Your task to perform on an android device: change the clock display to digital Image 0: 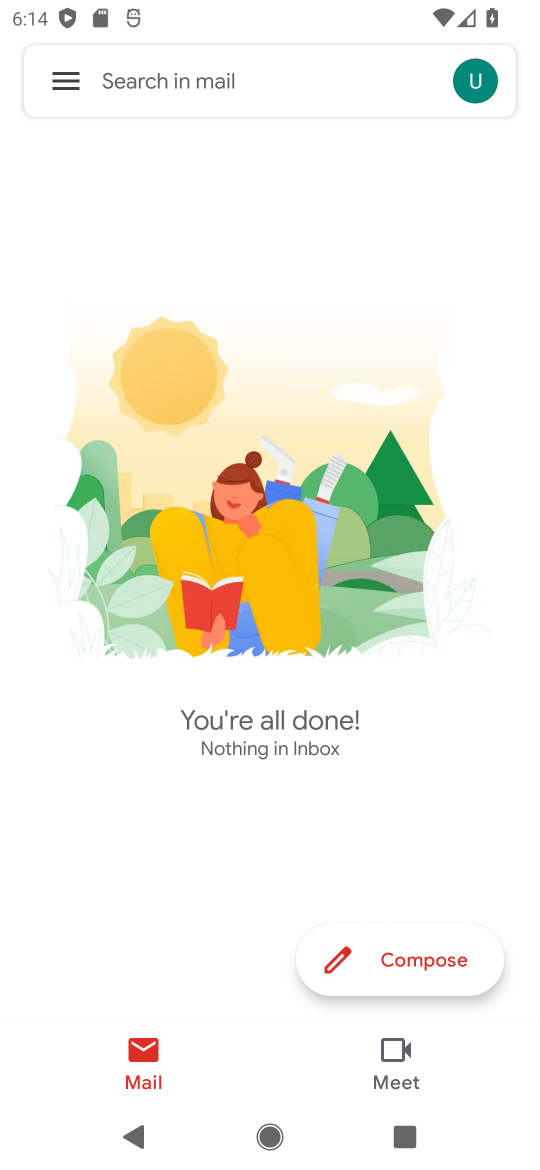
Step 0: press home button
Your task to perform on an android device: change the clock display to digital Image 1: 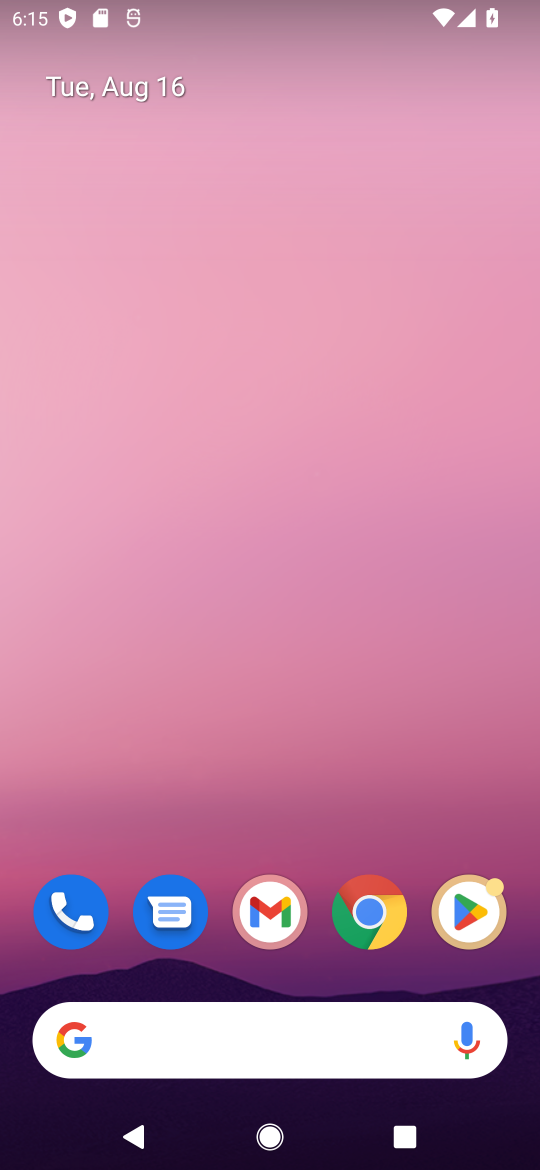
Step 1: drag from (394, 857) to (367, 296)
Your task to perform on an android device: change the clock display to digital Image 2: 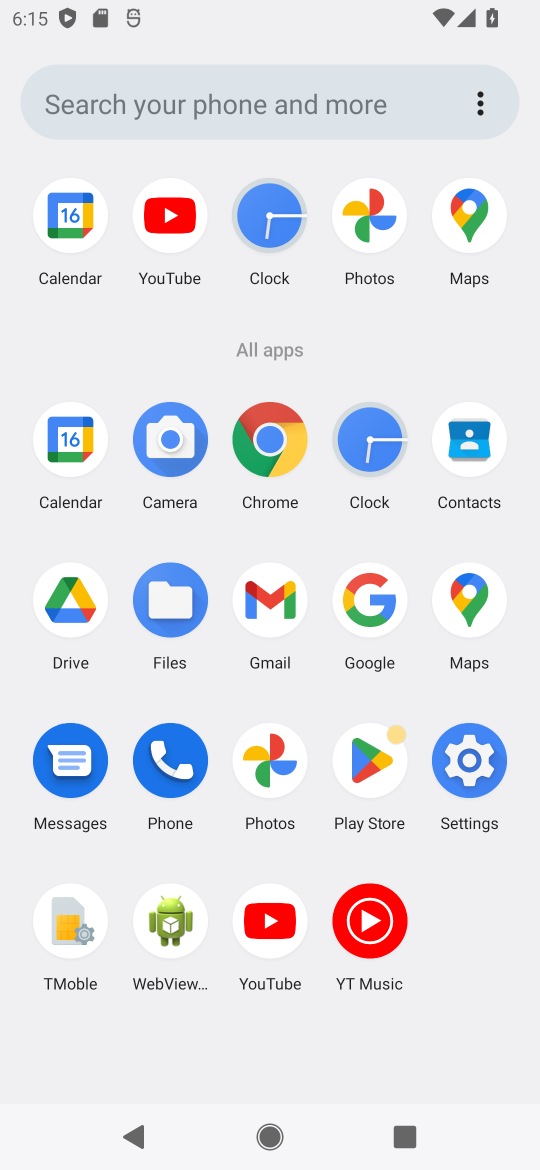
Step 2: click (368, 443)
Your task to perform on an android device: change the clock display to digital Image 3: 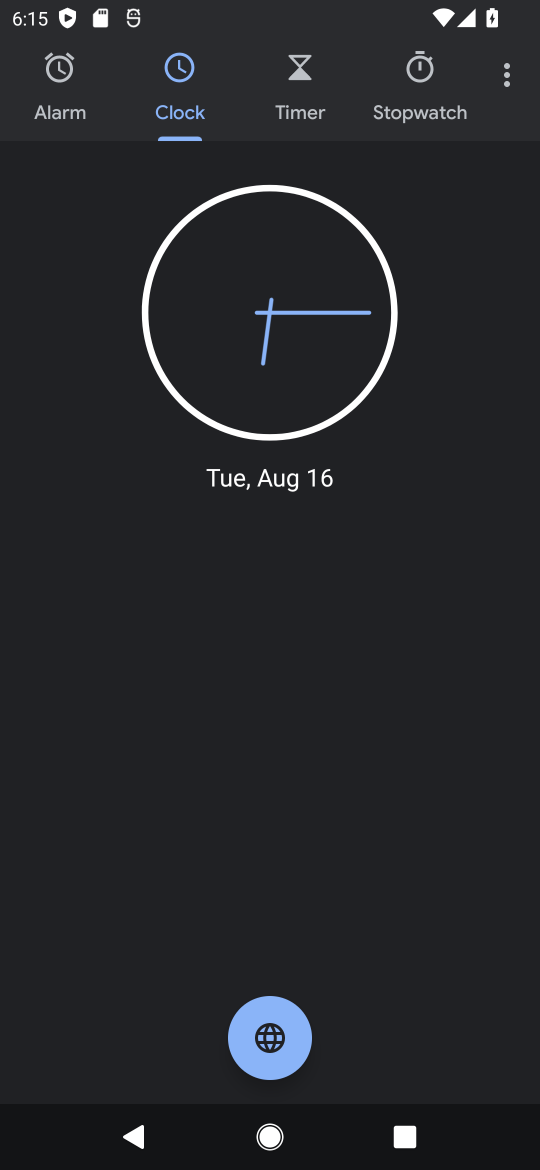
Step 3: click (502, 83)
Your task to perform on an android device: change the clock display to digital Image 4: 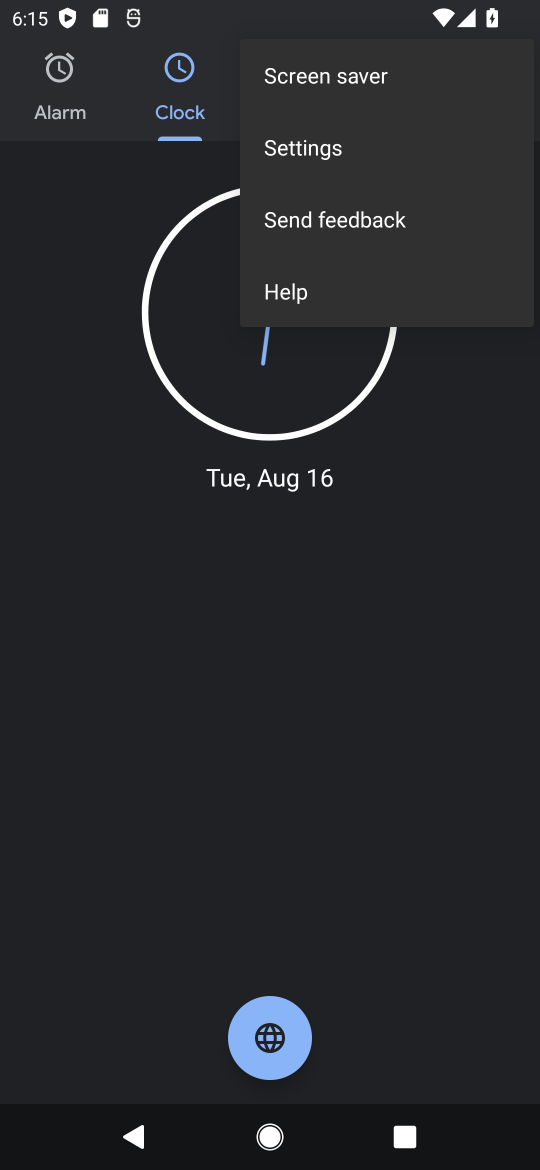
Step 4: click (311, 151)
Your task to perform on an android device: change the clock display to digital Image 5: 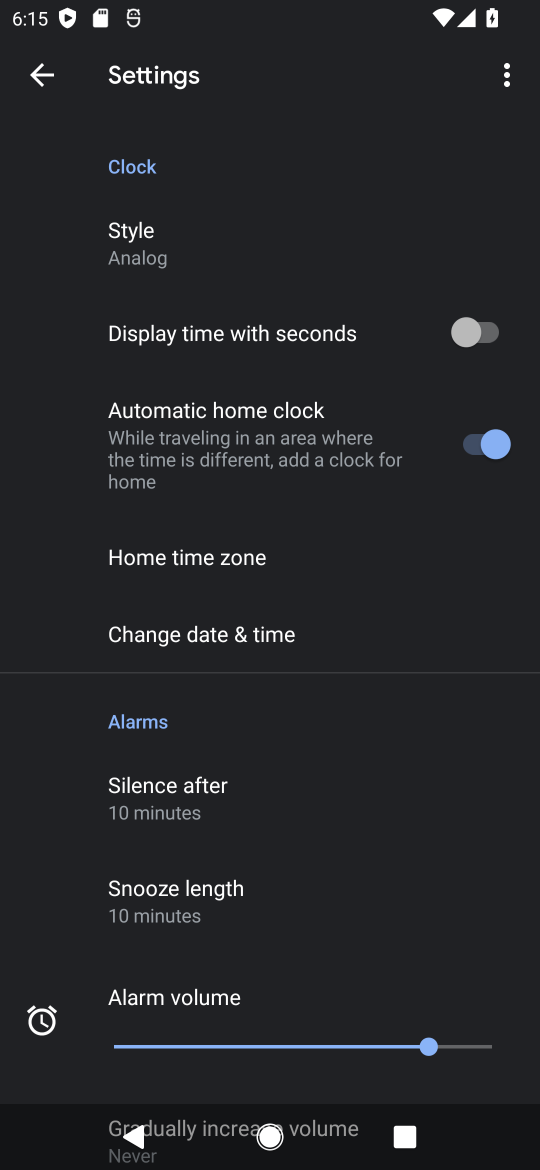
Step 5: click (134, 248)
Your task to perform on an android device: change the clock display to digital Image 6: 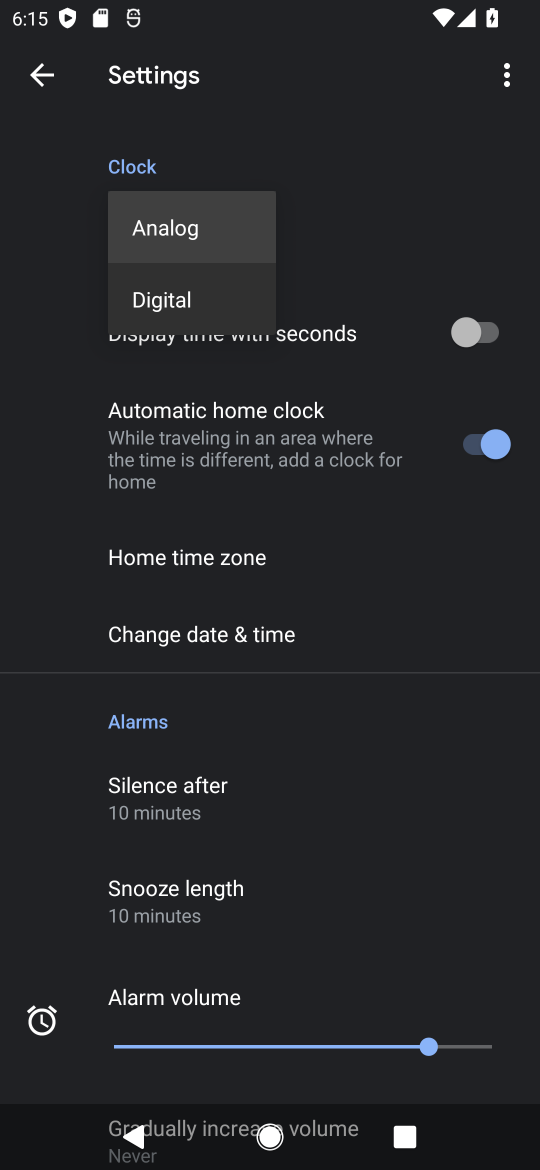
Step 6: click (165, 296)
Your task to perform on an android device: change the clock display to digital Image 7: 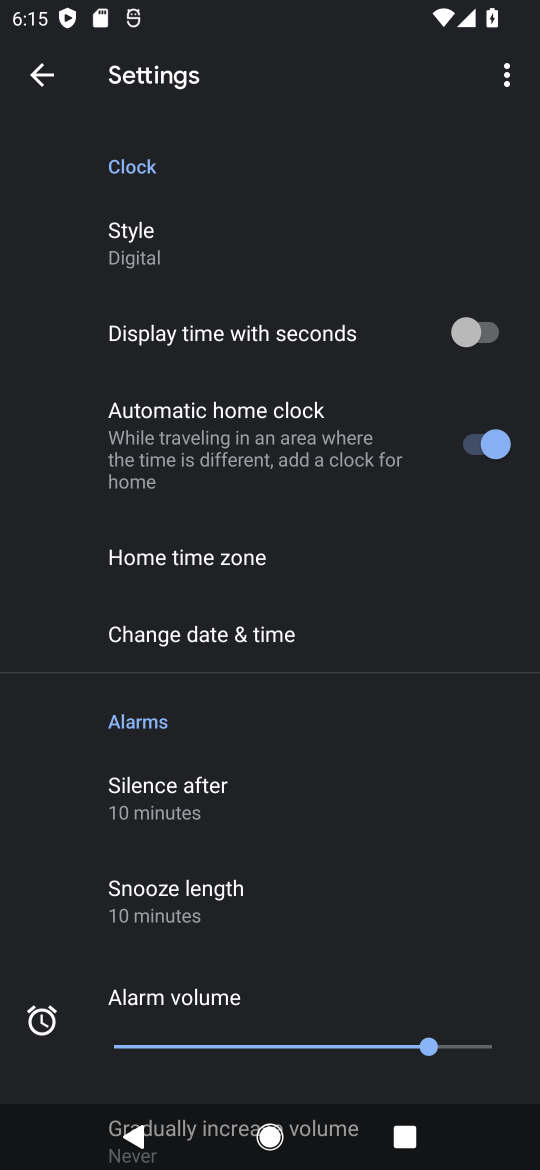
Step 7: task complete